Your task to perform on an android device: toggle pop-ups in chrome Image 0: 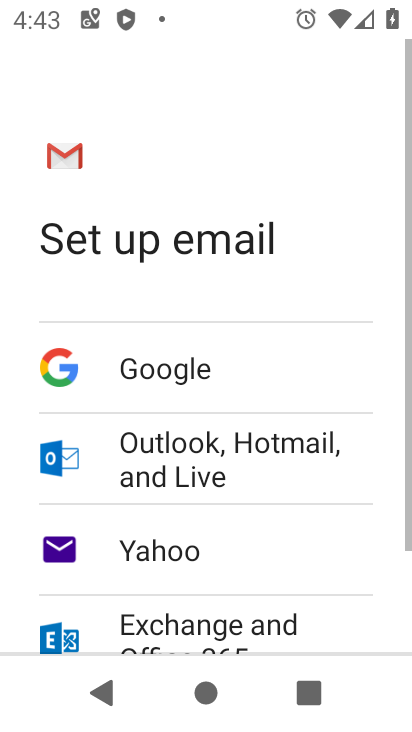
Step 0: press home button
Your task to perform on an android device: toggle pop-ups in chrome Image 1: 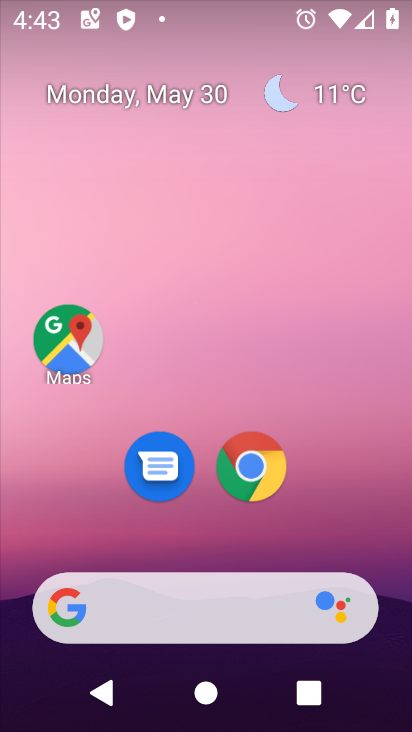
Step 1: drag from (332, 525) to (327, 139)
Your task to perform on an android device: toggle pop-ups in chrome Image 2: 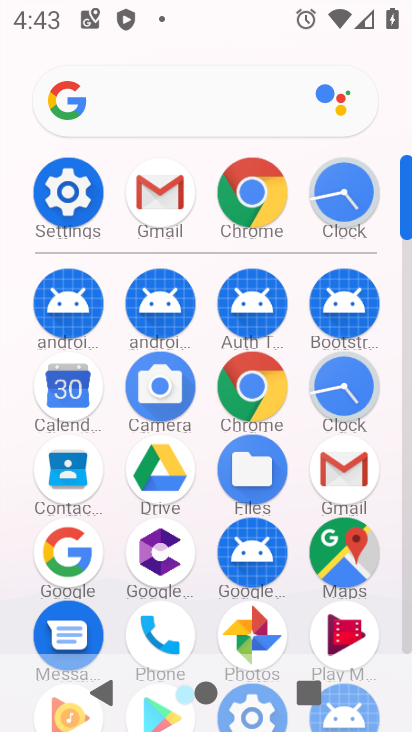
Step 2: click (256, 381)
Your task to perform on an android device: toggle pop-ups in chrome Image 3: 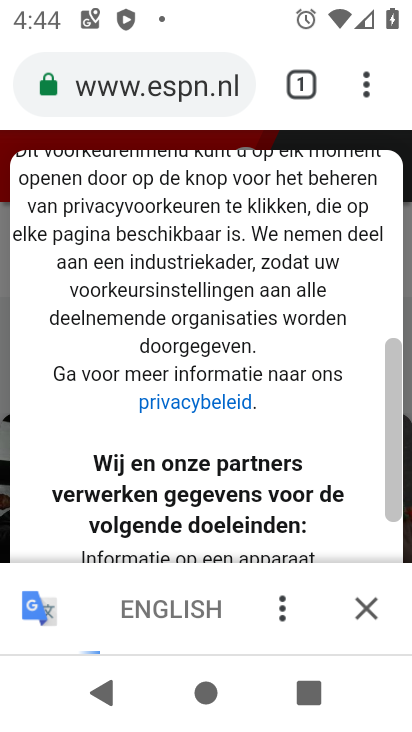
Step 3: click (364, 76)
Your task to perform on an android device: toggle pop-ups in chrome Image 4: 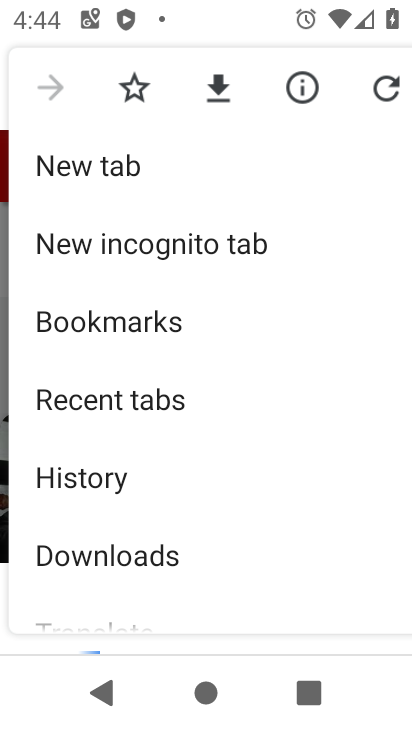
Step 4: drag from (182, 539) to (202, 181)
Your task to perform on an android device: toggle pop-ups in chrome Image 5: 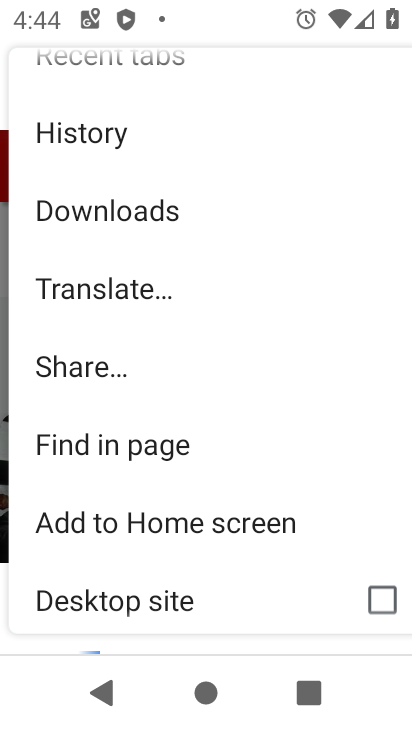
Step 5: drag from (243, 517) to (249, 155)
Your task to perform on an android device: toggle pop-ups in chrome Image 6: 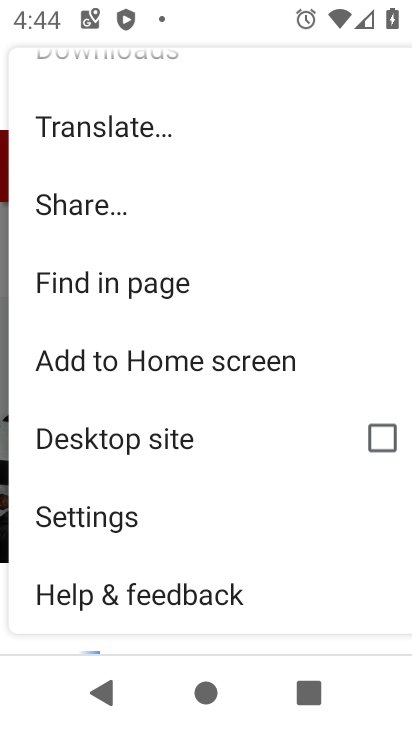
Step 6: click (85, 519)
Your task to perform on an android device: toggle pop-ups in chrome Image 7: 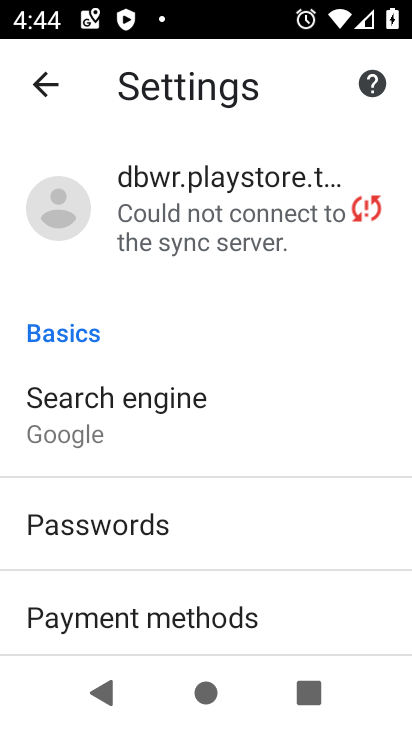
Step 7: drag from (298, 581) to (261, 203)
Your task to perform on an android device: toggle pop-ups in chrome Image 8: 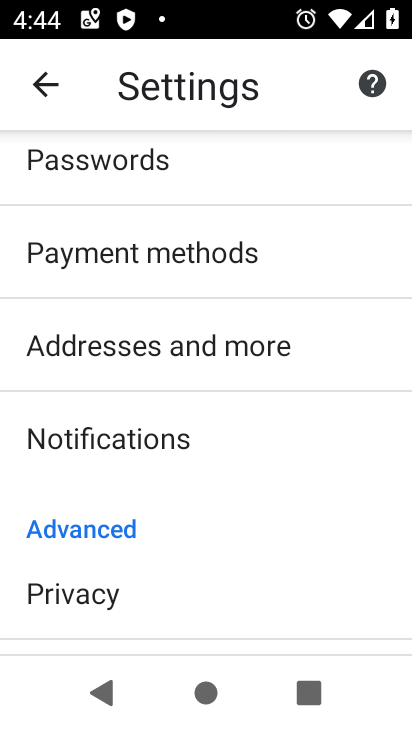
Step 8: drag from (221, 503) to (299, 209)
Your task to perform on an android device: toggle pop-ups in chrome Image 9: 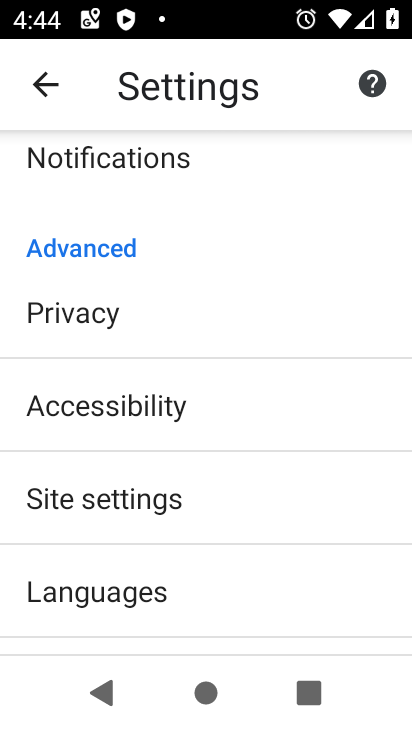
Step 9: click (129, 493)
Your task to perform on an android device: toggle pop-ups in chrome Image 10: 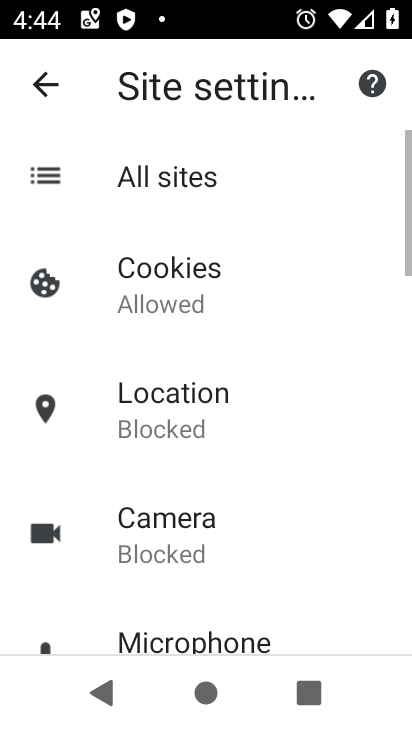
Step 10: drag from (255, 548) to (270, 80)
Your task to perform on an android device: toggle pop-ups in chrome Image 11: 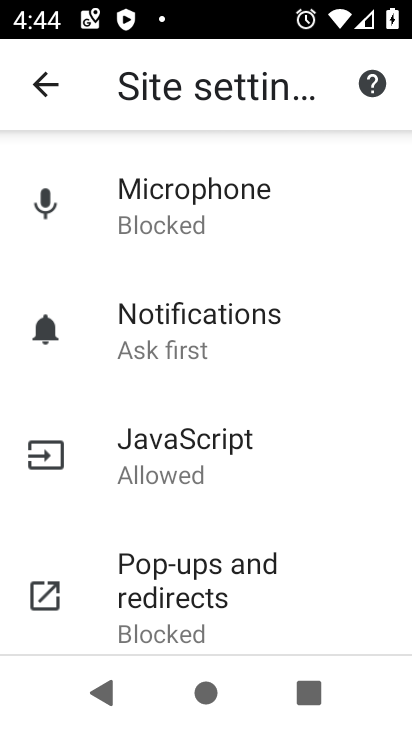
Step 11: drag from (261, 511) to (278, 200)
Your task to perform on an android device: toggle pop-ups in chrome Image 12: 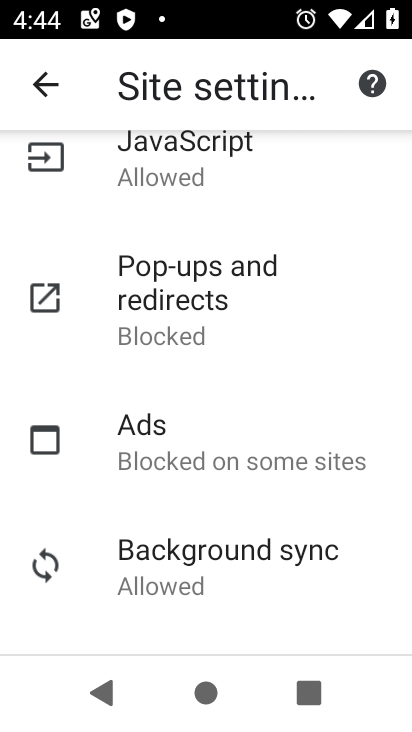
Step 12: click (180, 322)
Your task to perform on an android device: toggle pop-ups in chrome Image 13: 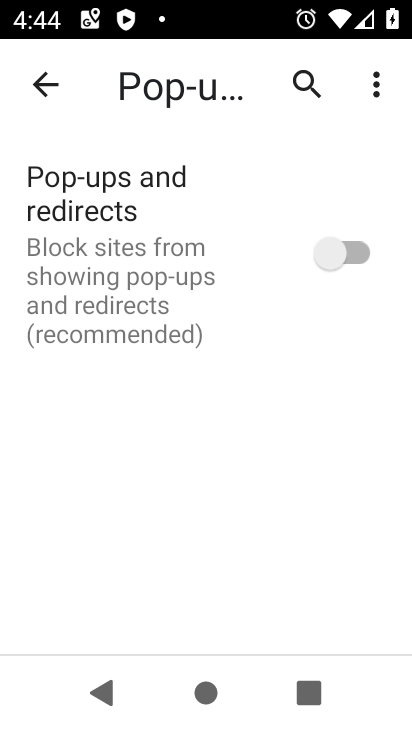
Step 13: click (336, 260)
Your task to perform on an android device: toggle pop-ups in chrome Image 14: 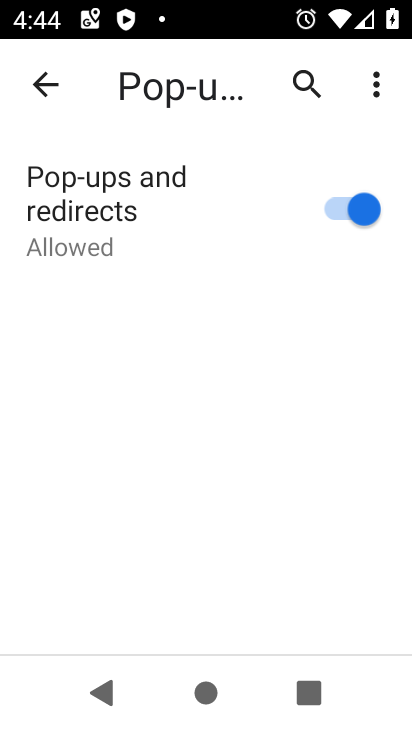
Step 14: task complete